Your task to perform on an android device: open chrome and create a bookmark for the current page Image 0: 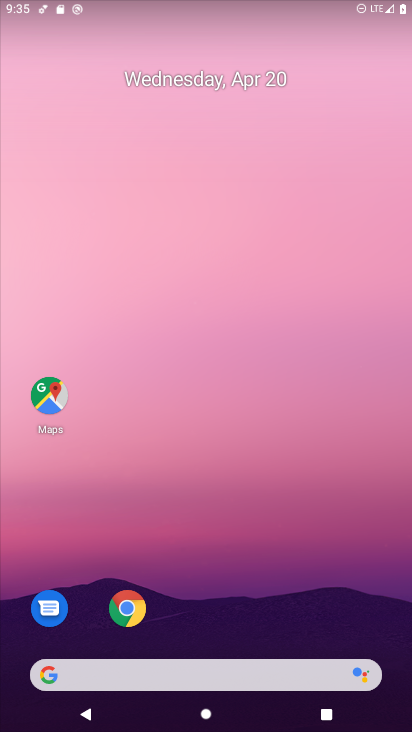
Step 0: click (129, 610)
Your task to perform on an android device: open chrome and create a bookmark for the current page Image 1: 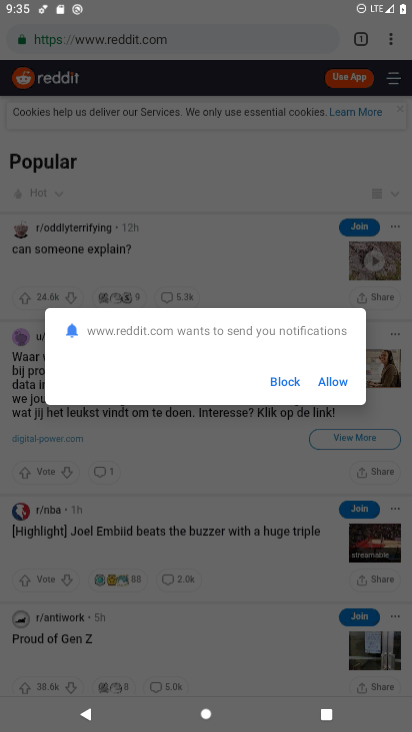
Step 1: click (280, 379)
Your task to perform on an android device: open chrome and create a bookmark for the current page Image 2: 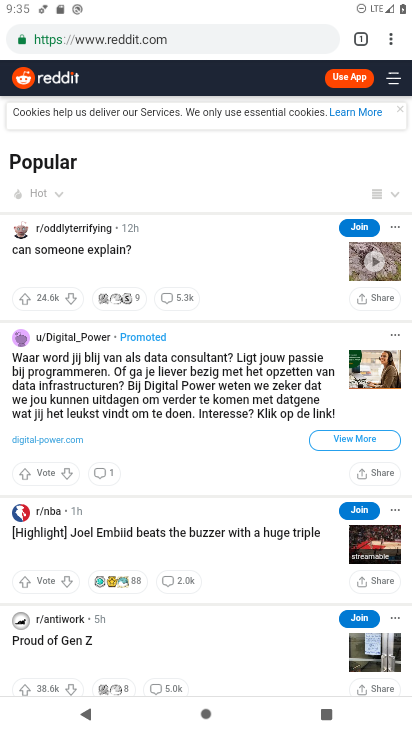
Step 2: click (396, 37)
Your task to perform on an android device: open chrome and create a bookmark for the current page Image 3: 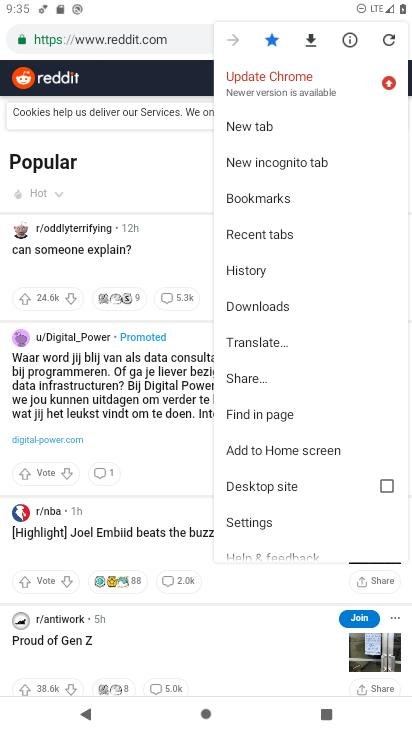
Step 3: click (270, 119)
Your task to perform on an android device: open chrome and create a bookmark for the current page Image 4: 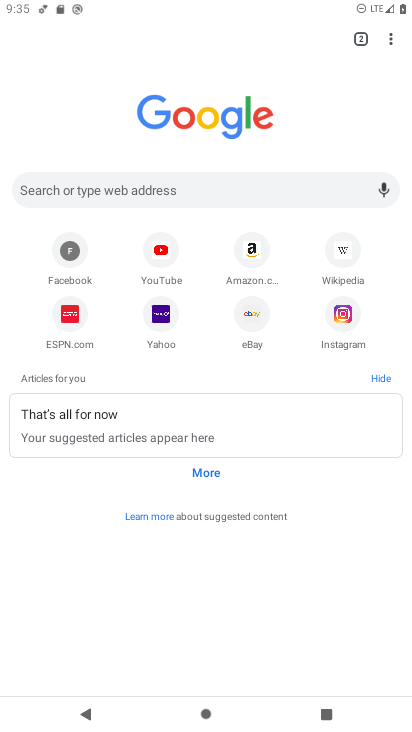
Step 4: click (140, 190)
Your task to perform on an android device: open chrome and create a bookmark for the current page Image 5: 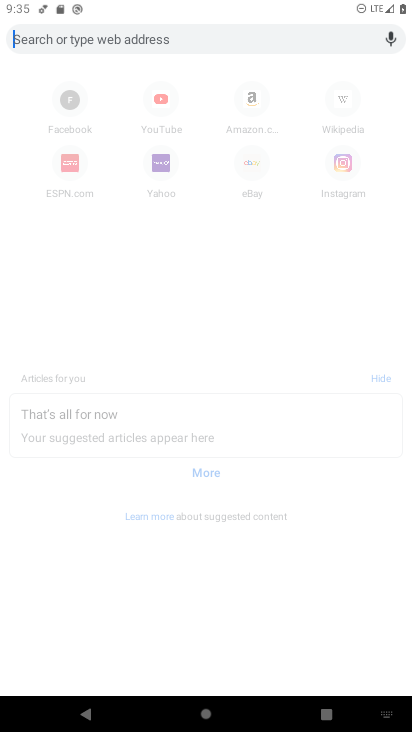
Step 5: type "shangai"
Your task to perform on an android device: open chrome and create a bookmark for the current page Image 6: 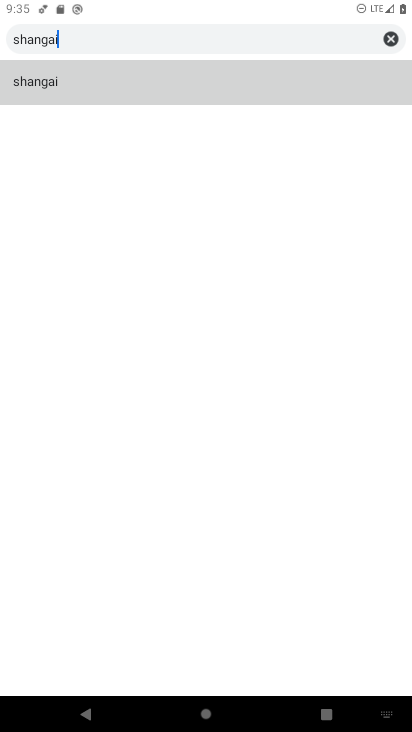
Step 6: click (44, 83)
Your task to perform on an android device: open chrome and create a bookmark for the current page Image 7: 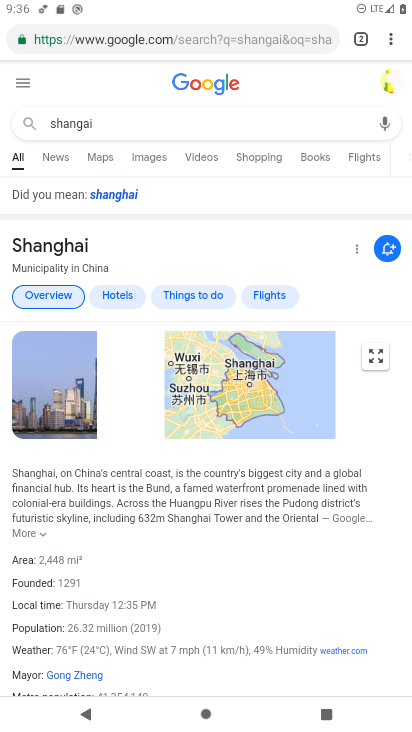
Step 7: click (392, 35)
Your task to perform on an android device: open chrome and create a bookmark for the current page Image 8: 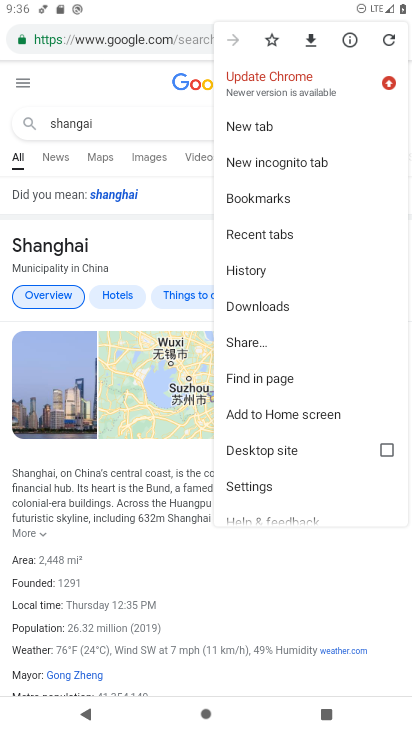
Step 8: click (268, 42)
Your task to perform on an android device: open chrome and create a bookmark for the current page Image 9: 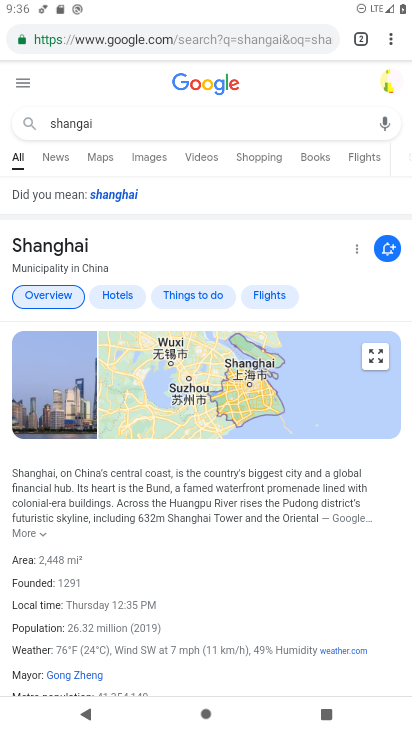
Step 9: task complete